Your task to perform on an android device: open chrome privacy settings Image 0: 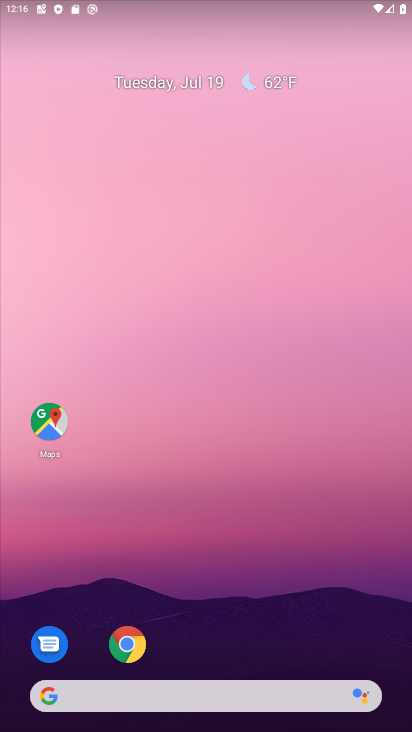
Step 0: click (130, 645)
Your task to perform on an android device: open chrome privacy settings Image 1: 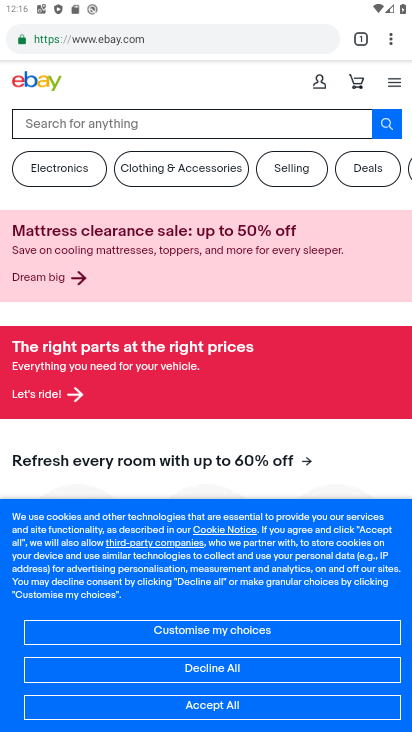
Step 1: click (389, 32)
Your task to perform on an android device: open chrome privacy settings Image 2: 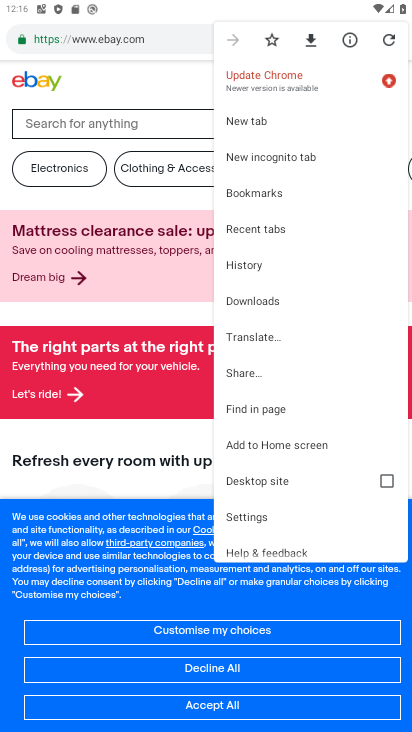
Step 2: click (248, 512)
Your task to perform on an android device: open chrome privacy settings Image 3: 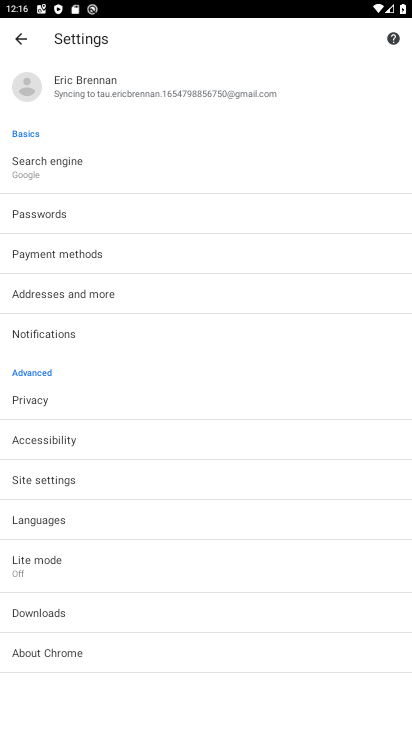
Step 3: click (34, 398)
Your task to perform on an android device: open chrome privacy settings Image 4: 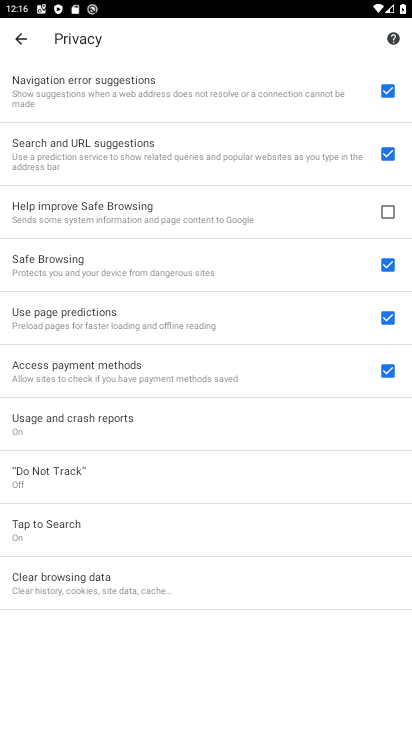
Step 4: task complete